Your task to perform on an android device: What's a good restaurant in Boston? Image 0: 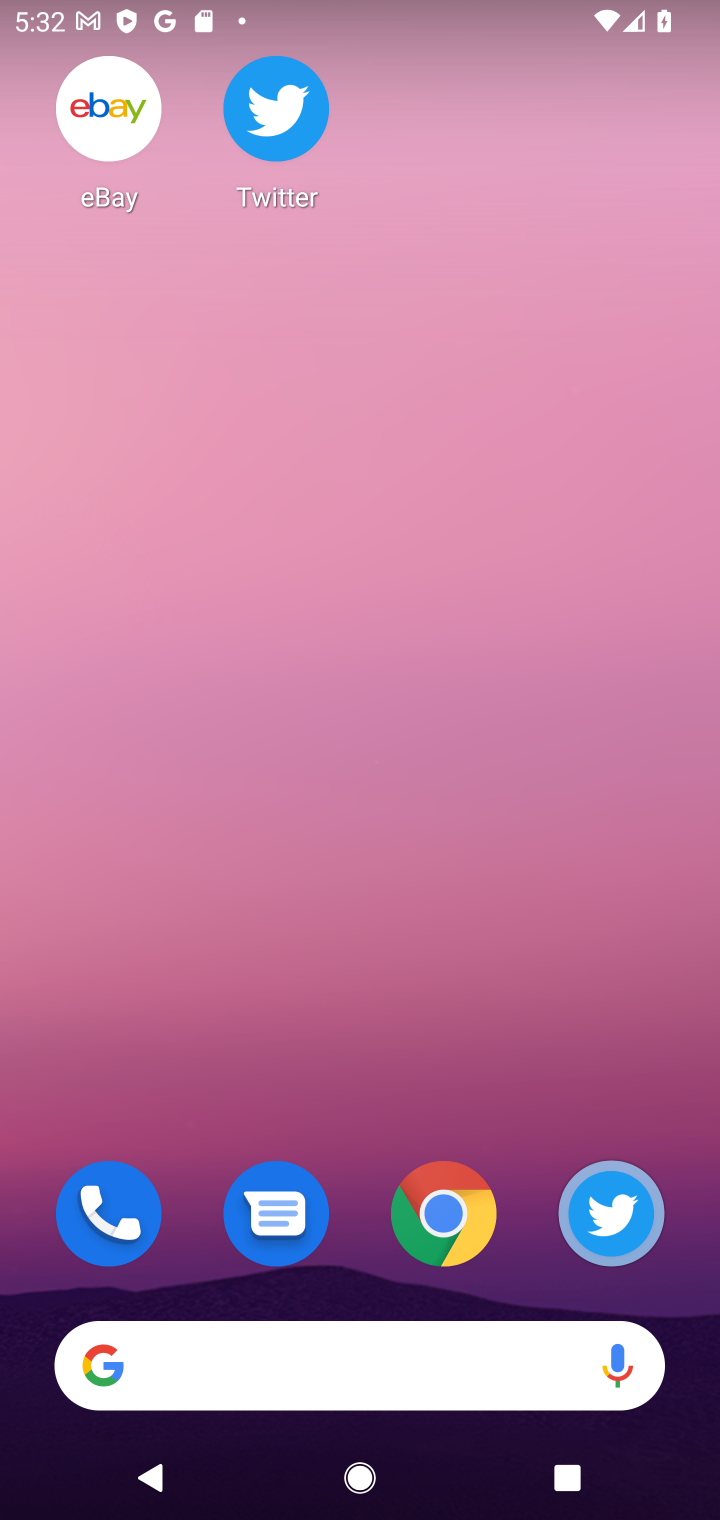
Step 0: click (351, 1351)
Your task to perform on an android device: What's a good restaurant in Boston? Image 1: 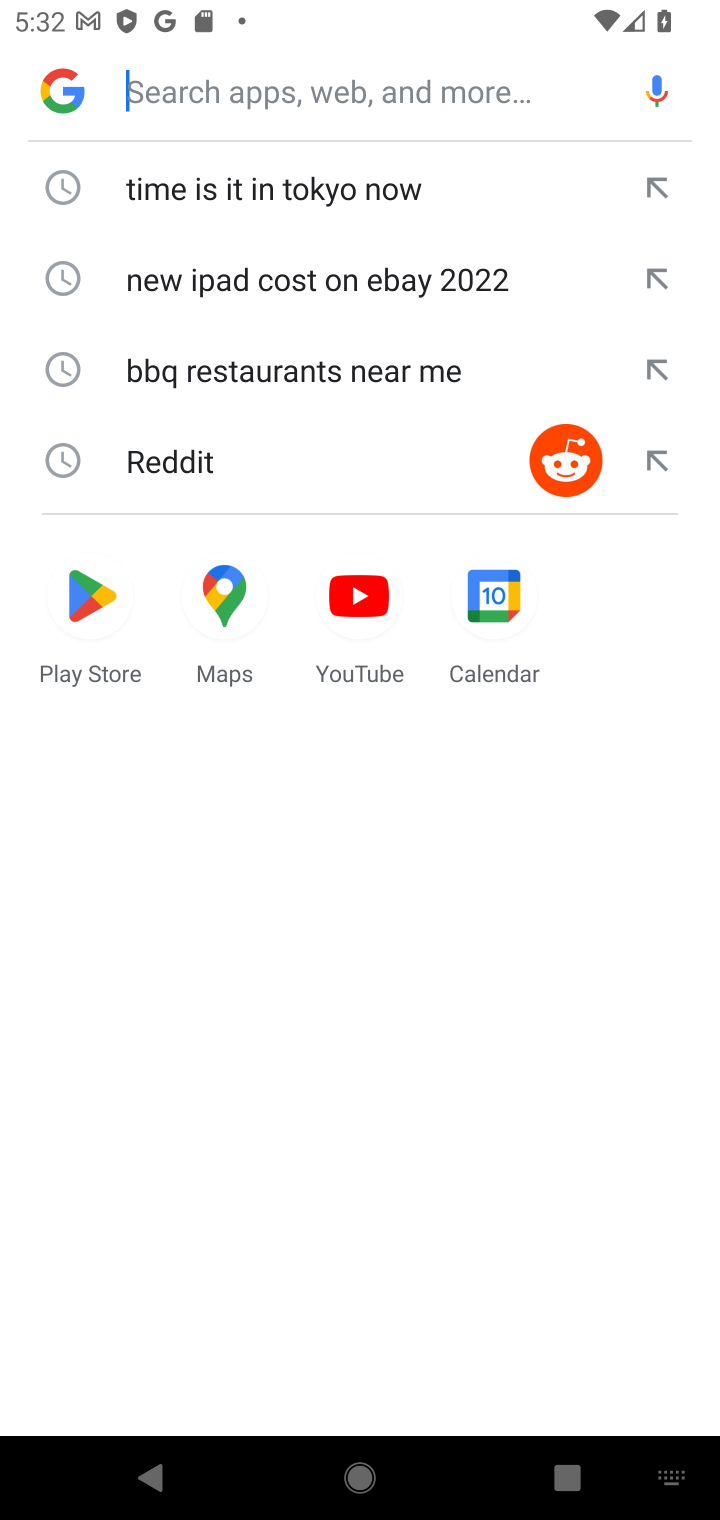
Step 1: type "restaurant in Boston"
Your task to perform on an android device: What's a good restaurant in Boston? Image 2: 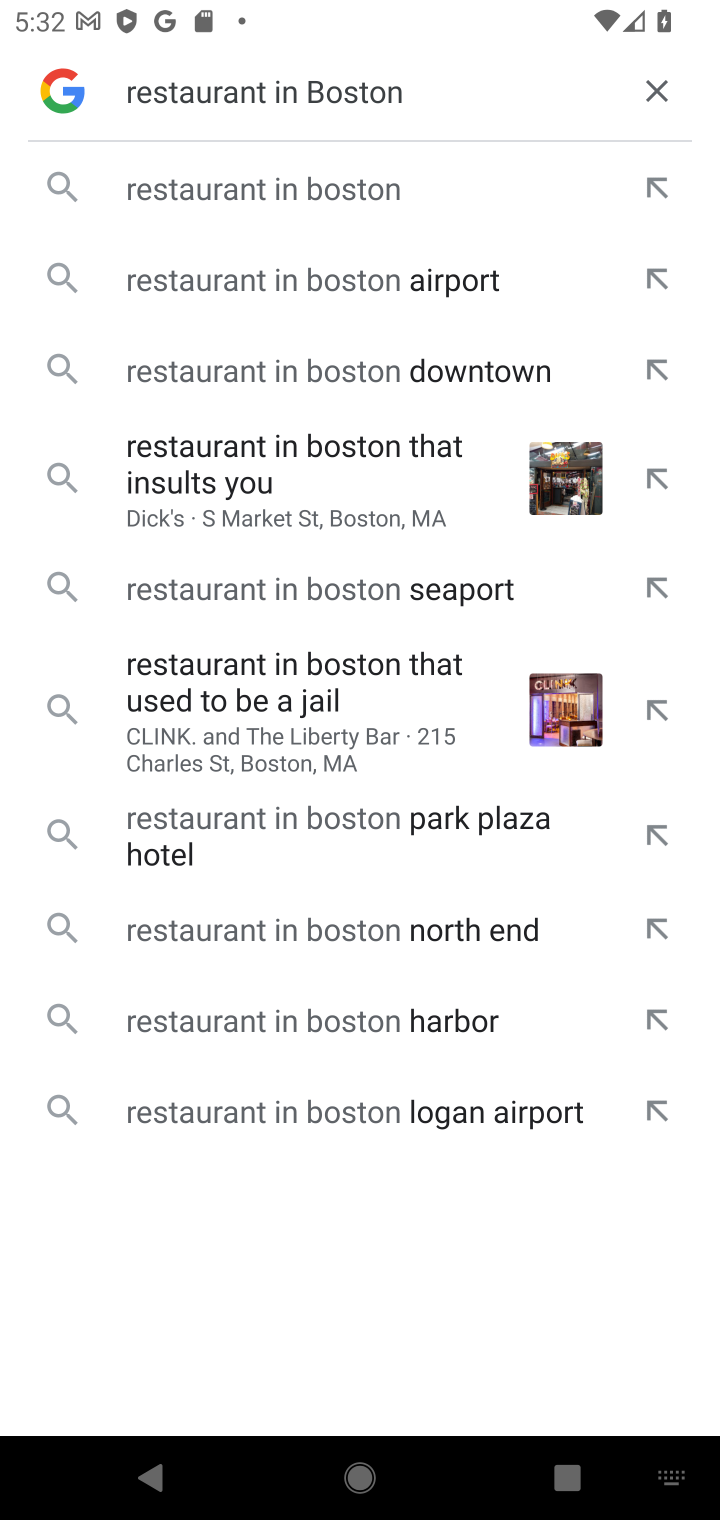
Step 2: click (388, 201)
Your task to perform on an android device: What's a good restaurant in Boston? Image 3: 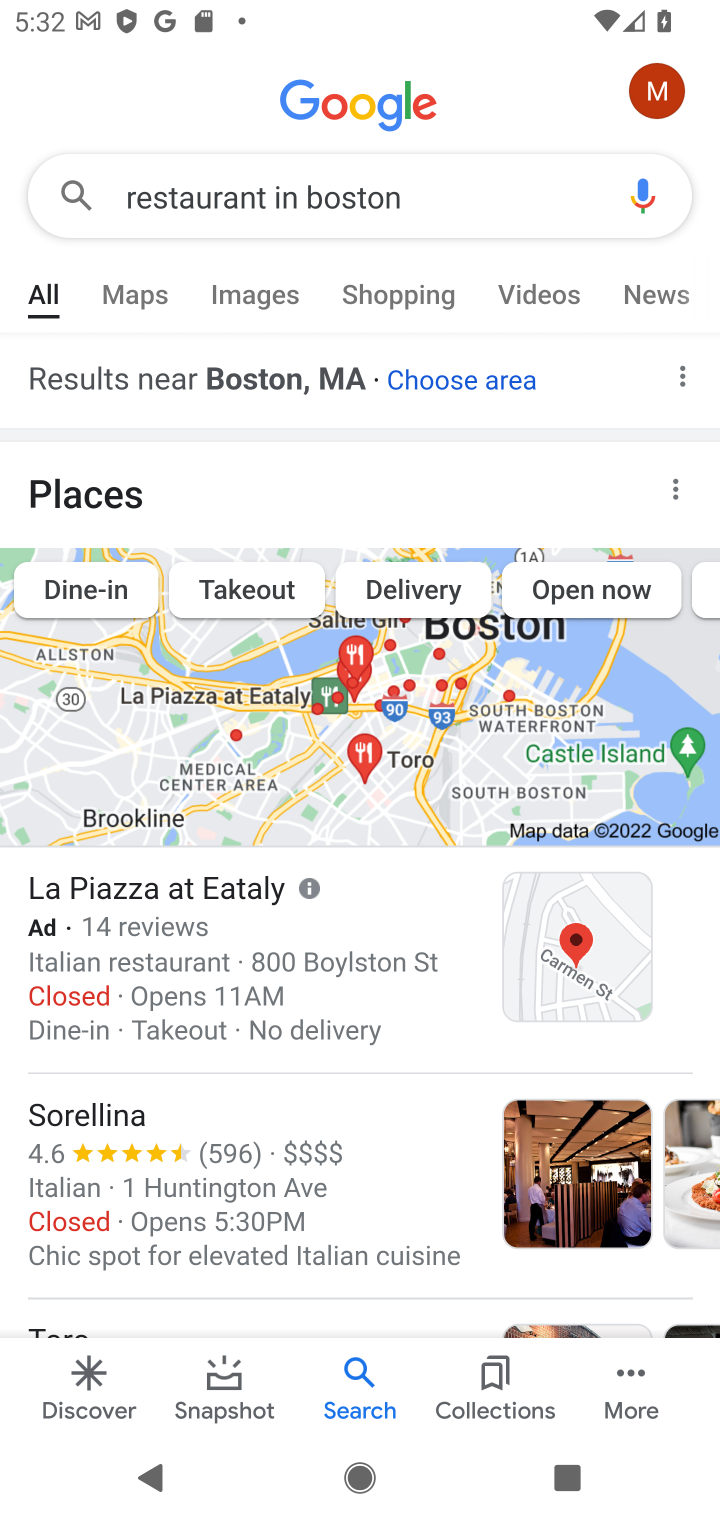
Step 3: drag from (338, 1090) to (425, 605)
Your task to perform on an android device: What's a good restaurant in Boston? Image 4: 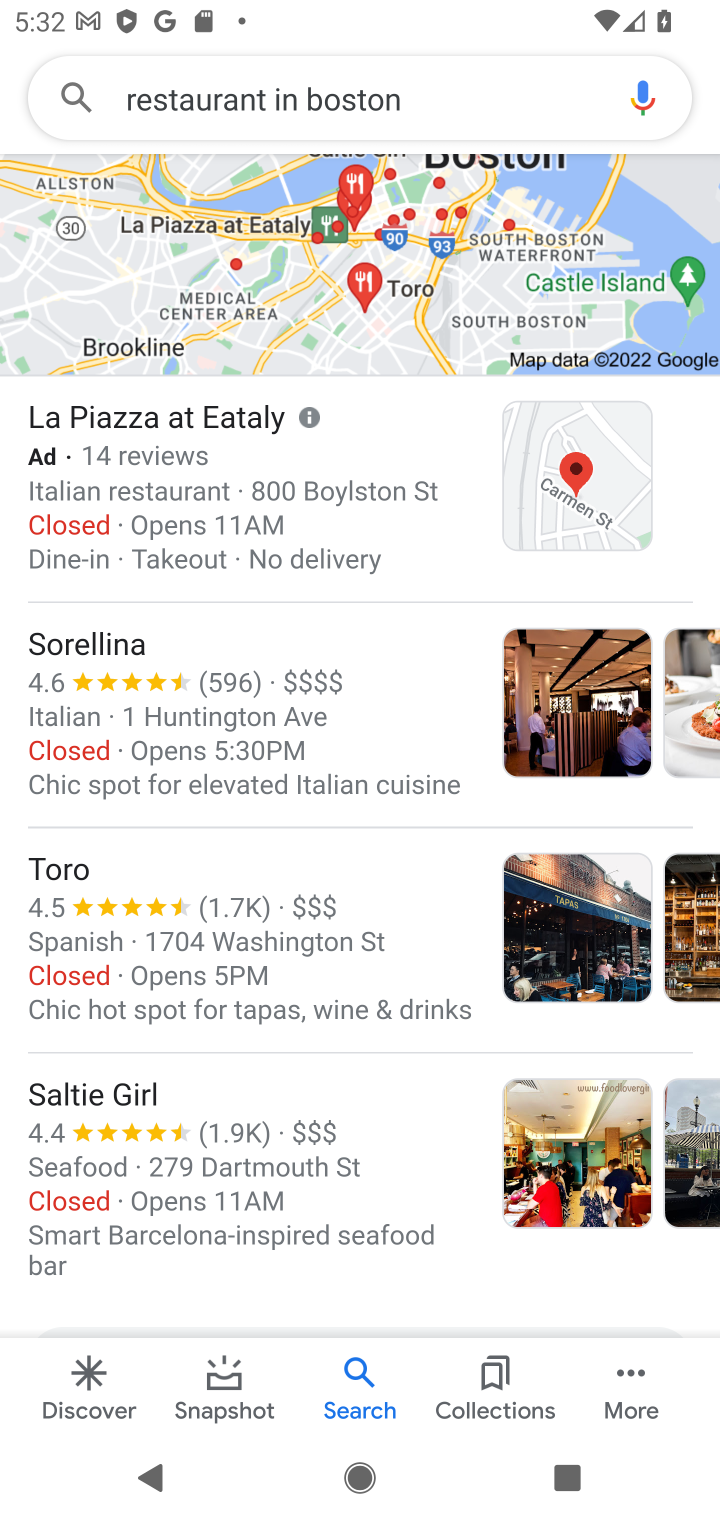
Step 4: click (382, 668)
Your task to perform on an android device: What's a good restaurant in Boston? Image 5: 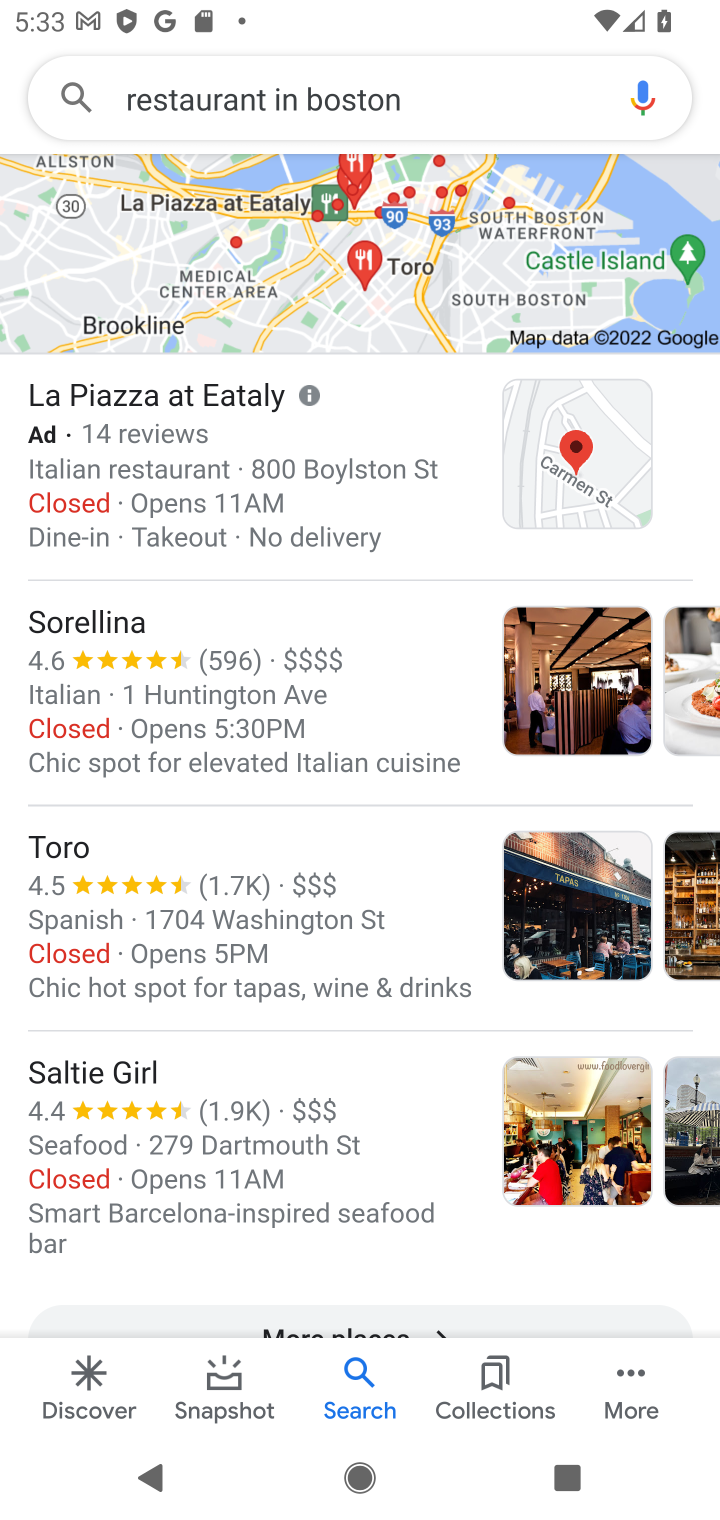
Step 5: task complete